Your task to perform on an android device: Open the stopwatch Image 0: 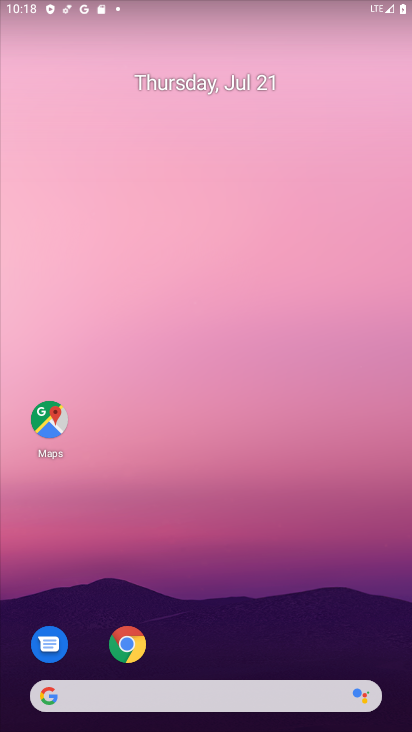
Step 0: press home button
Your task to perform on an android device: Open the stopwatch Image 1: 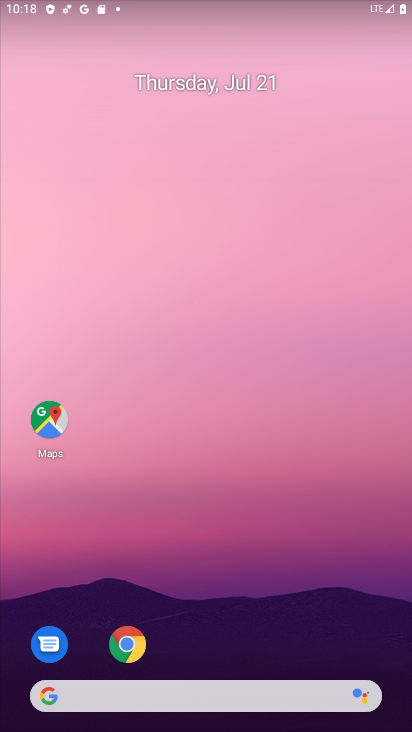
Step 1: drag from (208, 659) to (271, 98)
Your task to perform on an android device: Open the stopwatch Image 2: 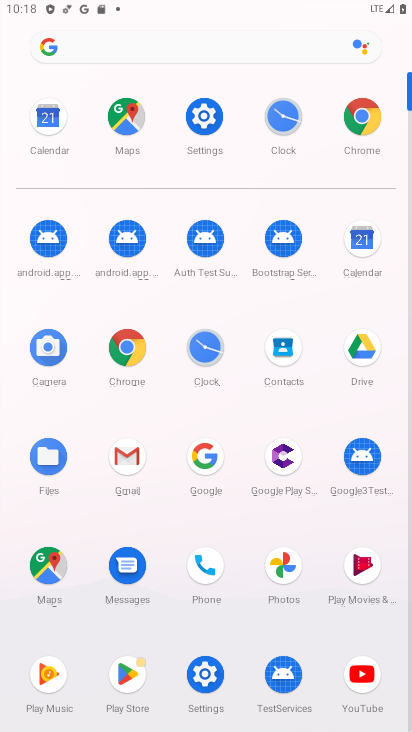
Step 2: click (279, 109)
Your task to perform on an android device: Open the stopwatch Image 3: 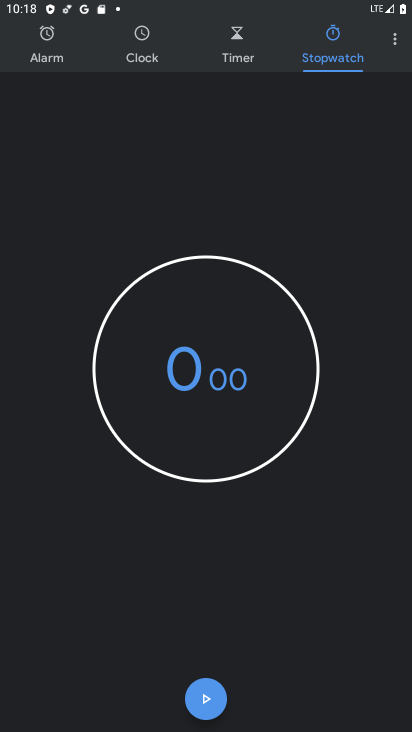
Step 3: click (204, 697)
Your task to perform on an android device: Open the stopwatch Image 4: 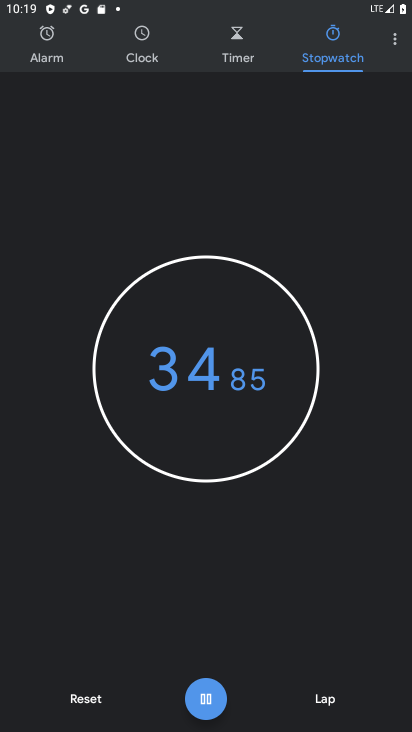
Step 4: task complete